Your task to perform on an android device: turn off location Image 0: 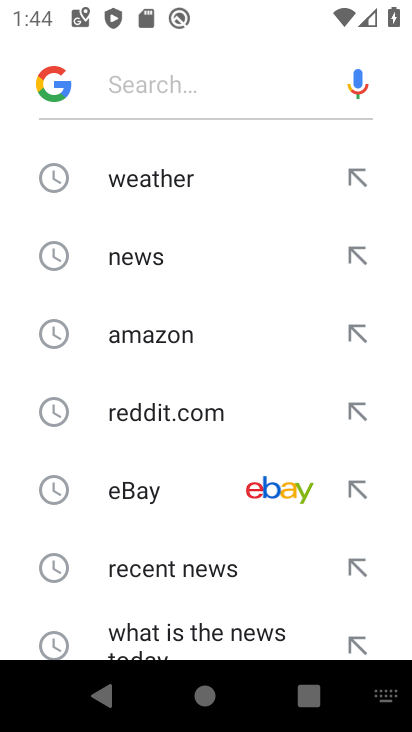
Step 0: press home button
Your task to perform on an android device: turn off location Image 1: 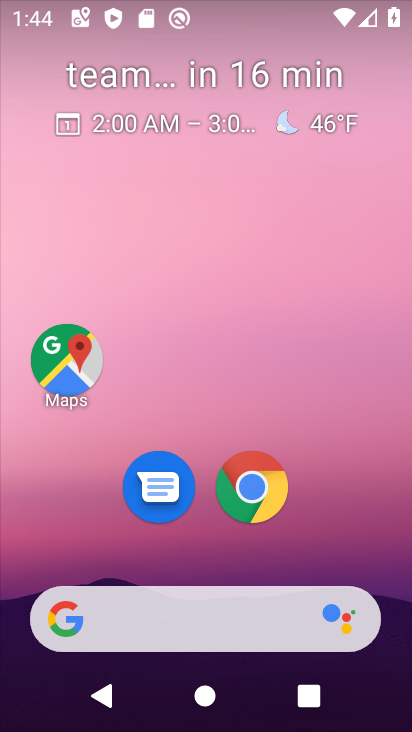
Step 1: drag from (342, 517) to (292, 90)
Your task to perform on an android device: turn off location Image 2: 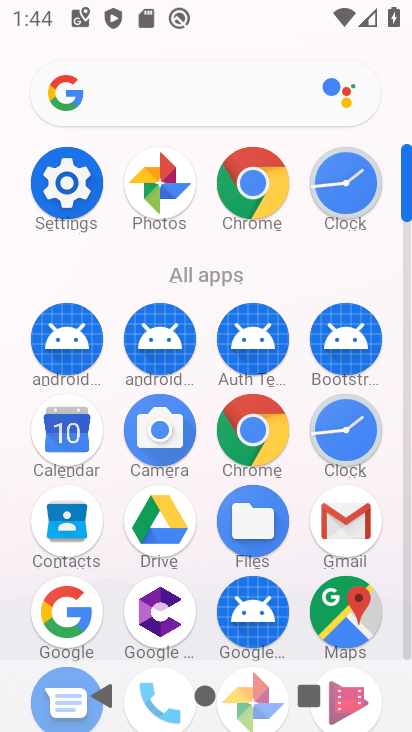
Step 2: click (69, 184)
Your task to perform on an android device: turn off location Image 3: 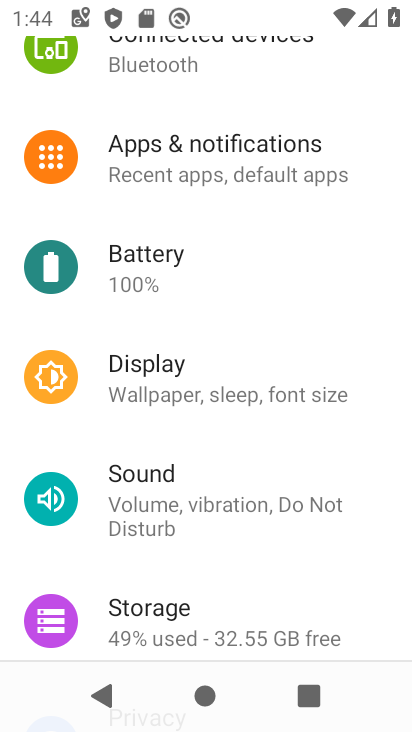
Step 3: drag from (226, 183) to (341, 611)
Your task to perform on an android device: turn off location Image 4: 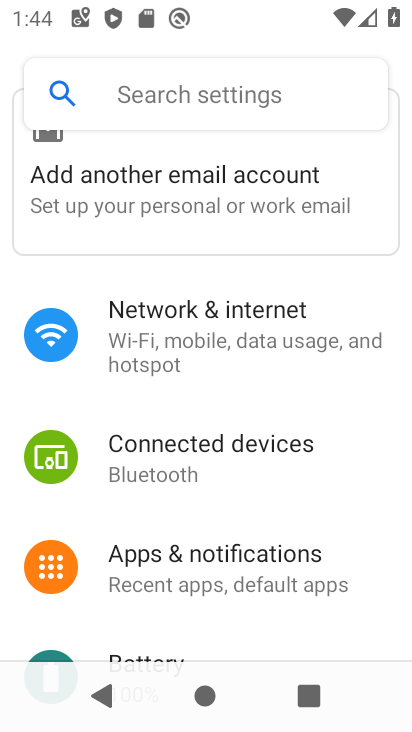
Step 4: drag from (262, 493) to (266, 74)
Your task to perform on an android device: turn off location Image 5: 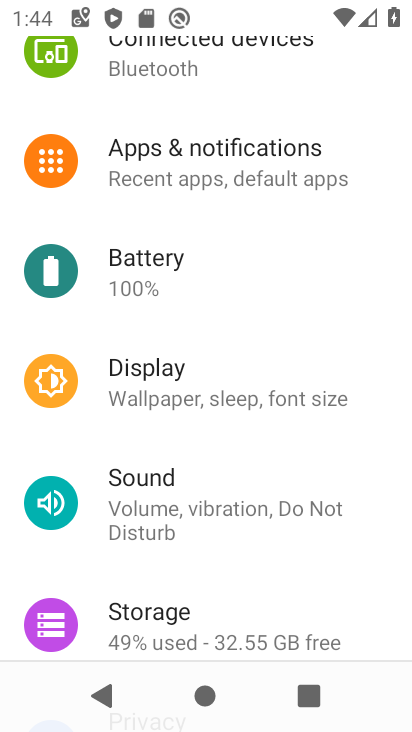
Step 5: drag from (266, 585) to (245, 133)
Your task to perform on an android device: turn off location Image 6: 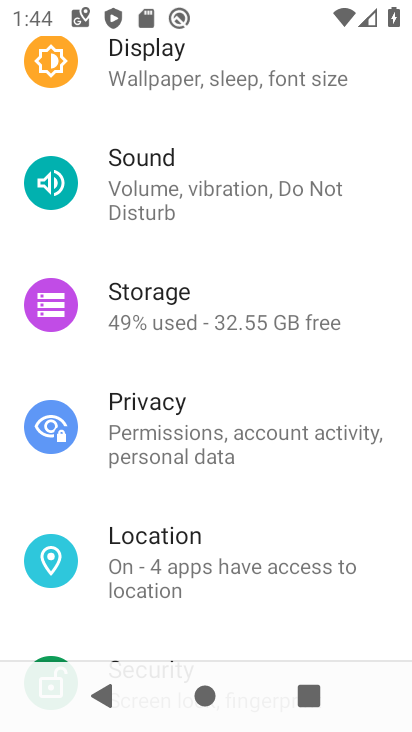
Step 6: click (177, 563)
Your task to perform on an android device: turn off location Image 7: 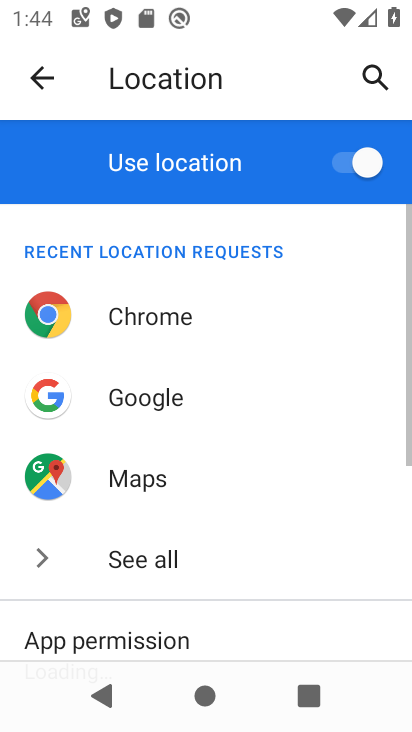
Step 7: click (363, 172)
Your task to perform on an android device: turn off location Image 8: 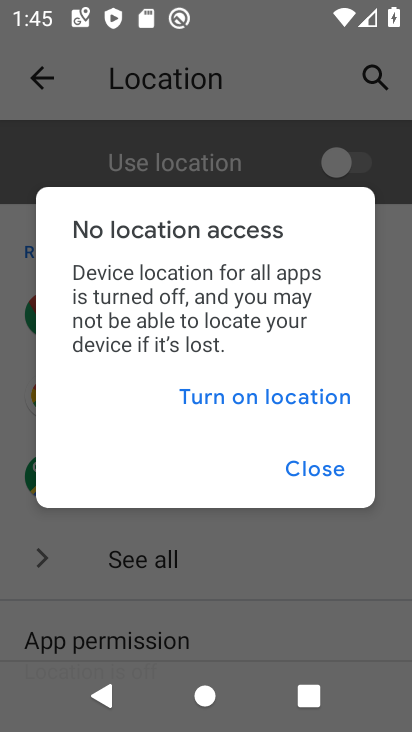
Step 8: click (314, 473)
Your task to perform on an android device: turn off location Image 9: 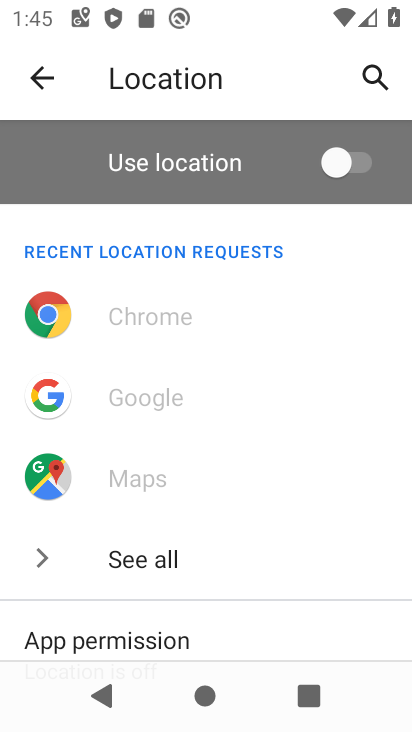
Step 9: task complete